Your task to perform on an android device: add a contact in the contacts app Image 0: 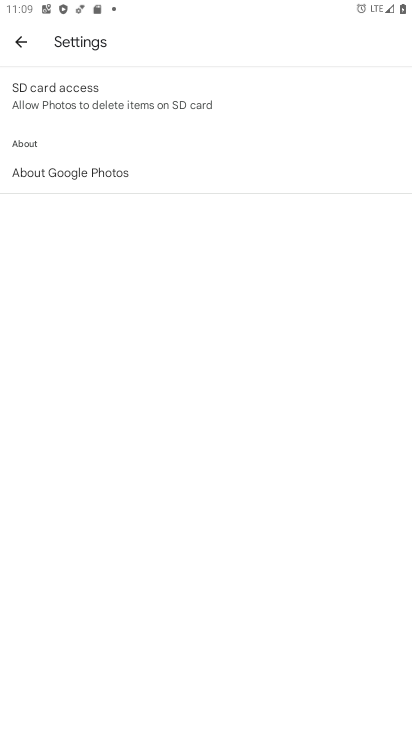
Step 0: press home button
Your task to perform on an android device: add a contact in the contacts app Image 1: 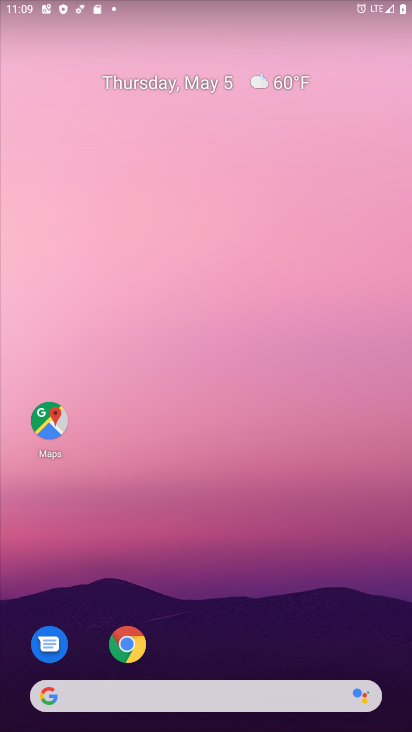
Step 1: drag from (276, 632) to (313, 244)
Your task to perform on an android device: add a contact in the contacts app Image 2: 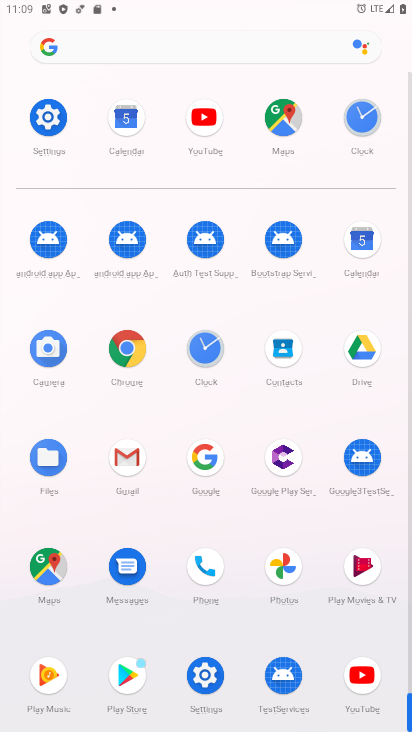
Step 2: click (290, 360)
Your task to perform on an android device: add a contact in the contacts app Image 3: 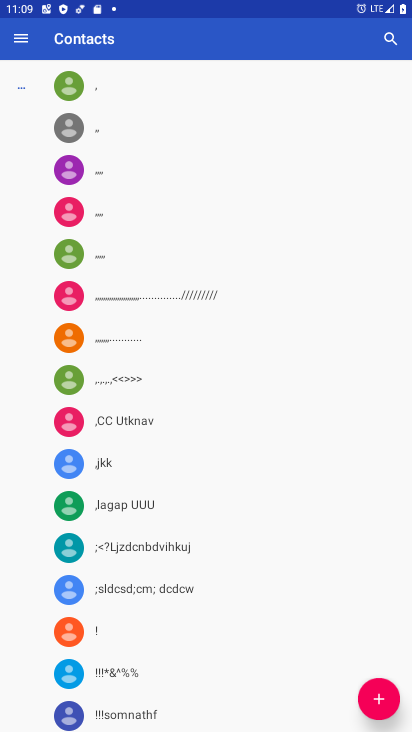
Step 3: click (374, 698)
Your task to perform on an android device: add a contact in the contacts app Image 4: 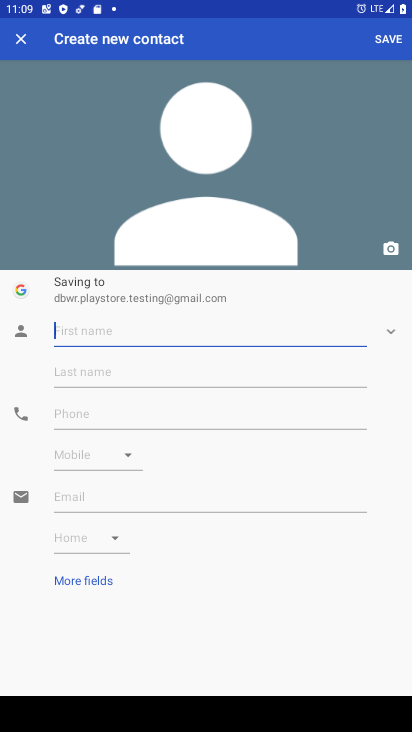
Step 4: type "puja"
Your task to perform on an android device: add a contact in the contacts app Image 5: 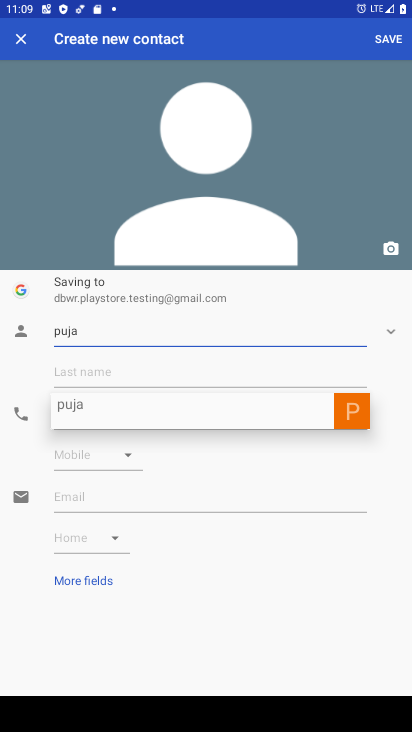
Step 5: type "12"
Your task to perform on an android device: add a contact in the contacts app Image 6: 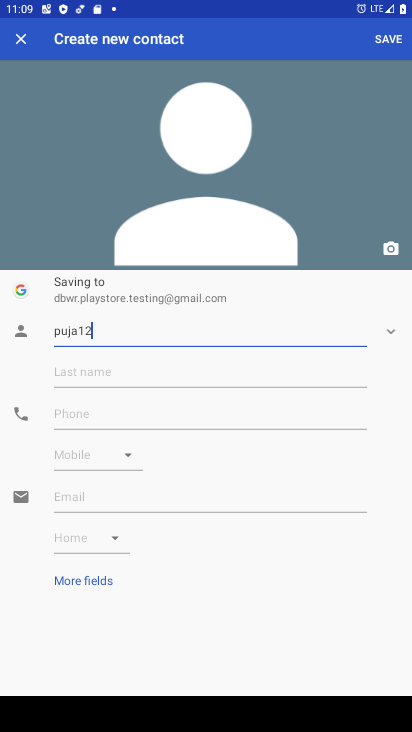
Step 6: click (97, 411)
Your task to perform on an android device: add a contact in the contacts app Image 7: 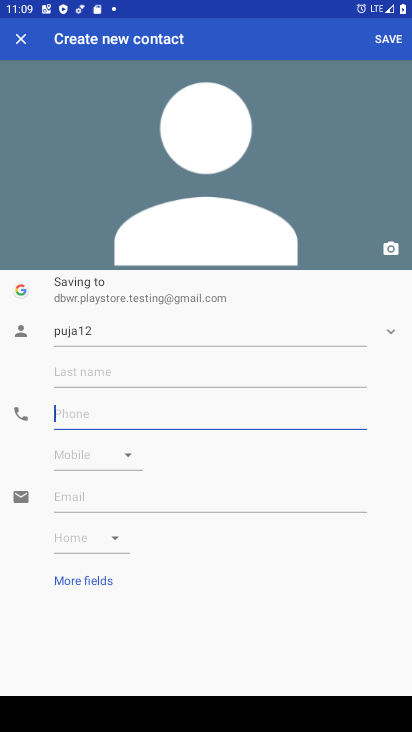
Step 7: type "234546566"
Your task to perform on an android device: add a contact in the contacts app Image 8: 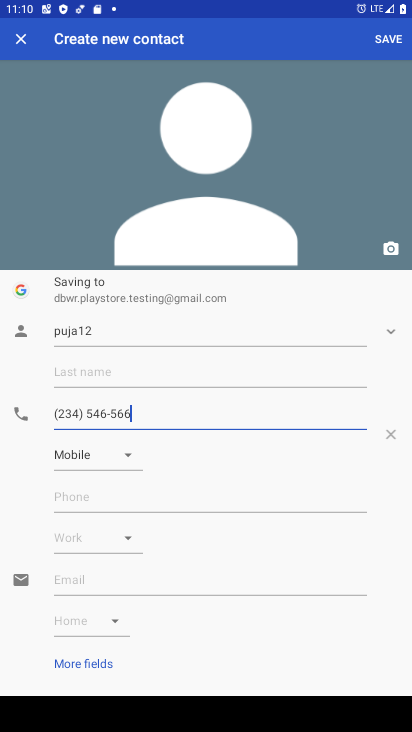
Step 8: click (383, 45)
Your task to perform on an android device: add a contact in the contacts app Image 9: 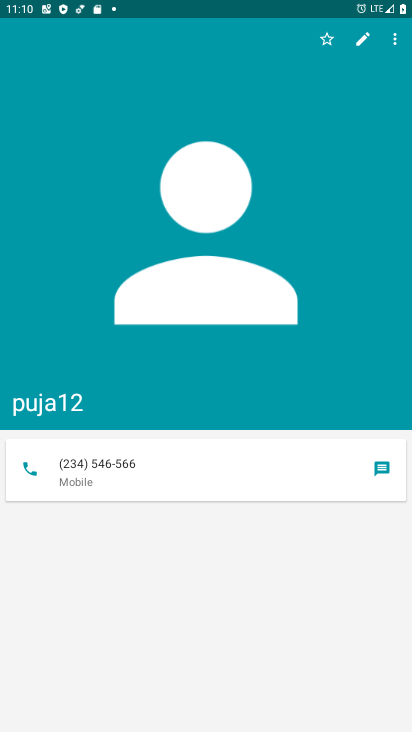
Step 9: task complete